Your task to perform on an android device: open app "Speedtest by Ookla" (install if not already installed) and go to login screen Image 0: 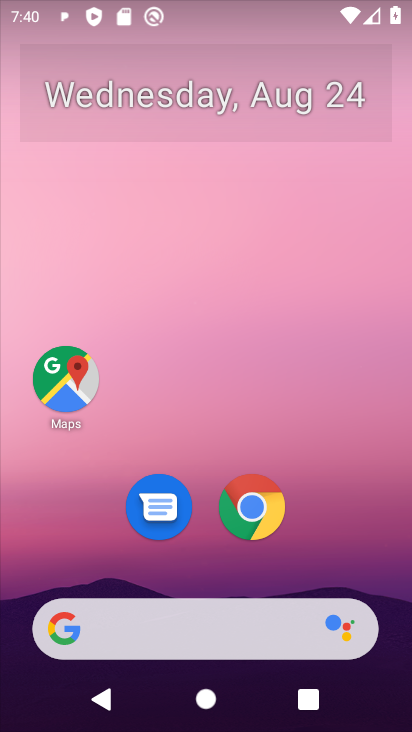
Step 0: press home button
Your task to perform on an android device: open app "Speedtest by Ookla" (install if not already installed) and go to login screen Image 1: 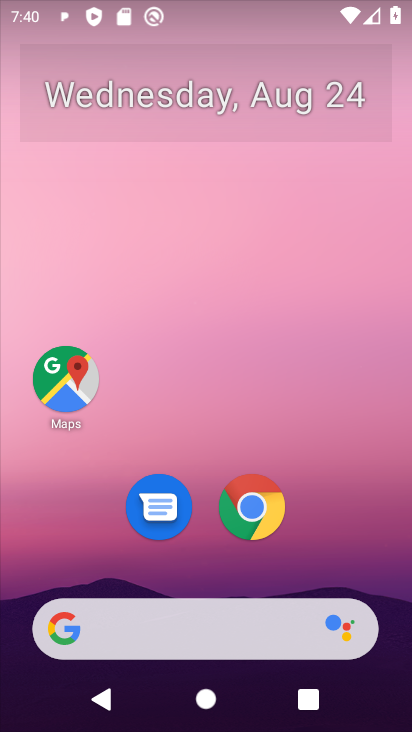
Step 1: drag from (352, 552) to (366, 110)
Your task to perform on an android device: open app "Speedtest by Ookla" (install if not already installed) and go to login screen Image 2: 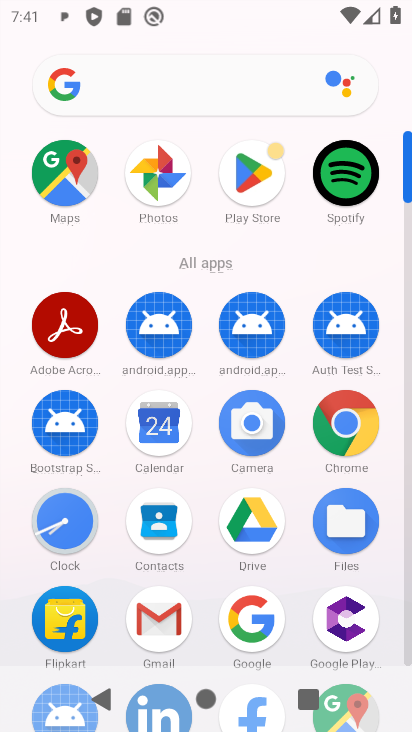
Step 2: click (257, 173)
Your task to perform on an android device: open app "Speedtest by Ookla" (install if not already installed) and go to login screen Image 3: 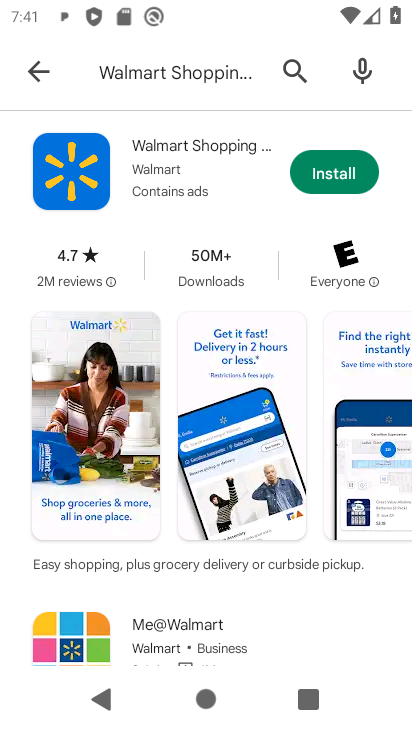
Step 3: press back button
Your task to perform on an android device: open app "Speedtest by Ookla" (install if not already installed) and go to login screen Image 4: 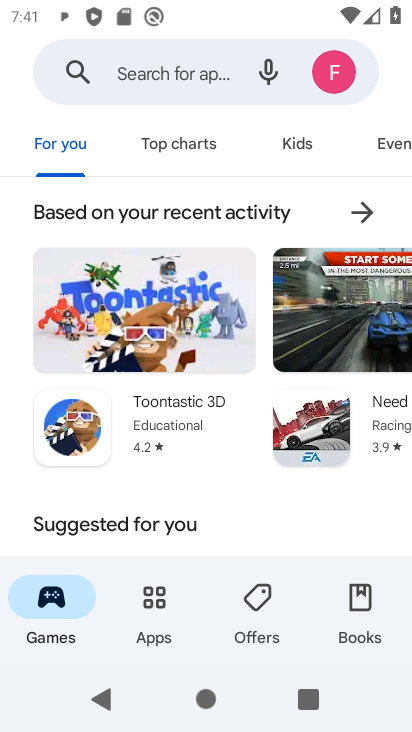
Step 4: click (174, 70)
Your task to perform on an android device: open app "Speedtest by Ookla" (install if not already installed) and go to login screen Image 5: 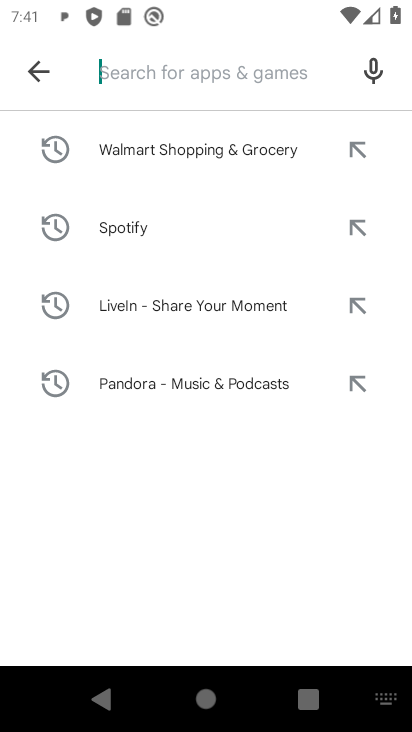
Step 5: type "Speedtest by Ookla"
Your task to perform on an android device: open app "Speedtest by Ookla" (install if not already installed) and go to login screen Image 6: 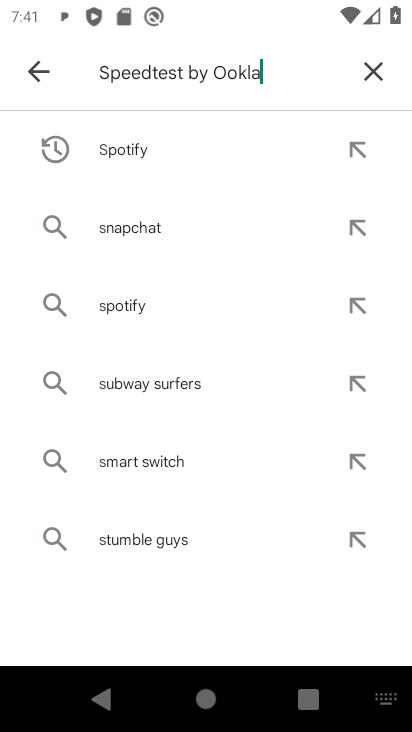
Step 6: press enter
Your task to perform on an android device: open app "Speedtest by Ookla" (install if not already installed) and go to login screen Image 7: 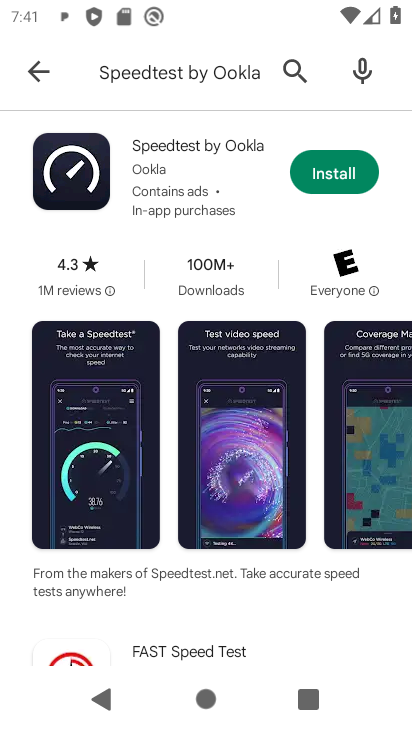
Step 7: click (338, 171)
Your task to perform on an android device: open app "Speedtest by Ookla" (install if not already installed) and go to login screen Image 8: 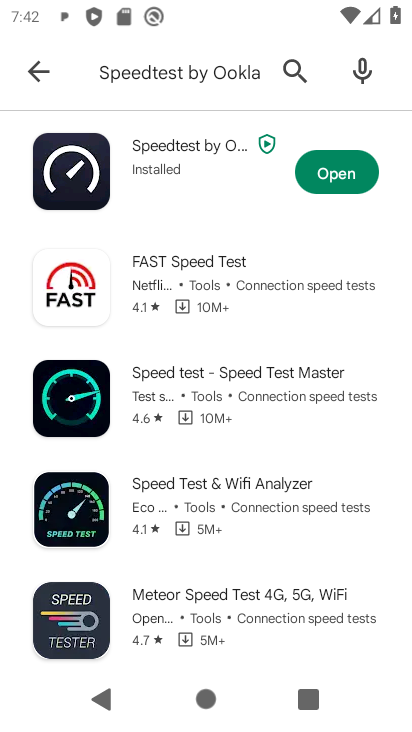
Step 8: click (345, 165)
Your task to perform on an android device: open app "Speedtest by Ookla" (install if not already installed) and go to login screen Image 9: 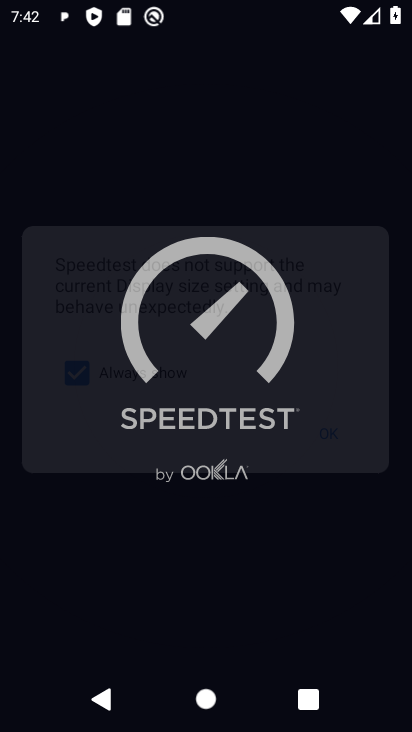
Step 9: click (330, 428)
Your task to perform on an android device: open app "Speedtest by Ookla" (install if not already installed) and go to login screen Image 10: 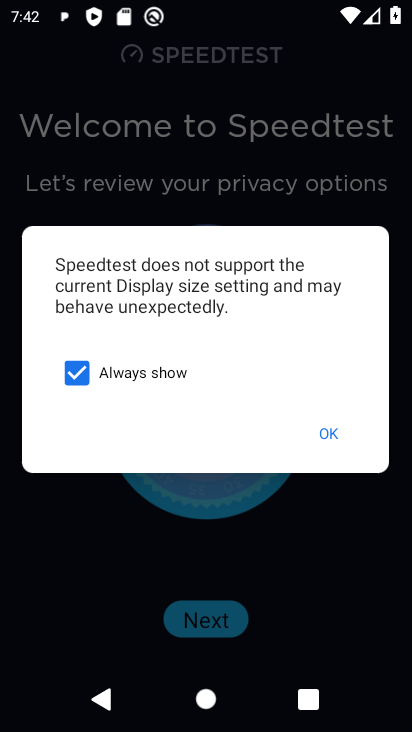
Step 10: click (324, 437)
Your task to perform on an android device: open app "Speedtest by Ookla" (install if not already installed) and go to login screen Image 11: 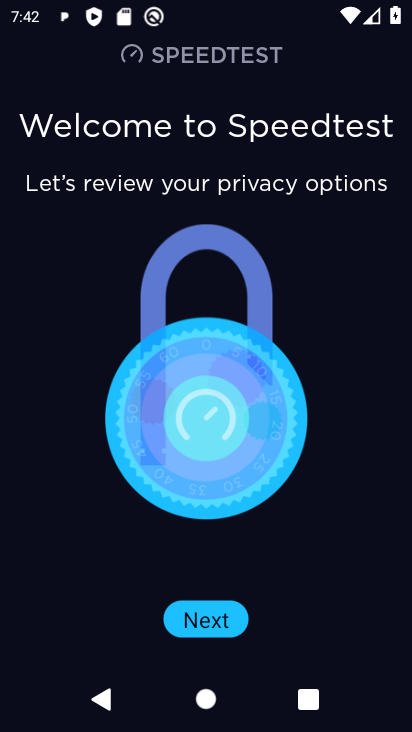
Step 11: click (211, 628)
Your task to perform on an android device: open app "Speedtest by Ookla" (install if not already installed) and go to login screen Image 12: 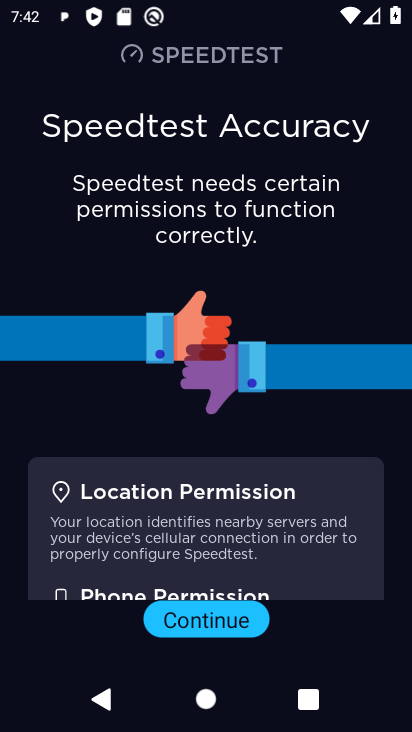
Step 12: click (217, 632)
Your task to perform on an android device: open app "Speedtest by Ookla" (install if not already installed) and go to login screen Image 13: 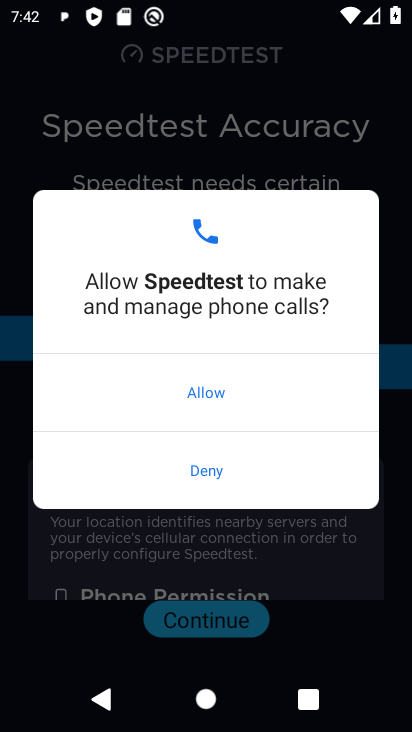
Step 13: click (201, 391)
Your task to perform on an android device: open app "Speedtest by Ookla" (install if not already installed) and go to login screen Image 14: 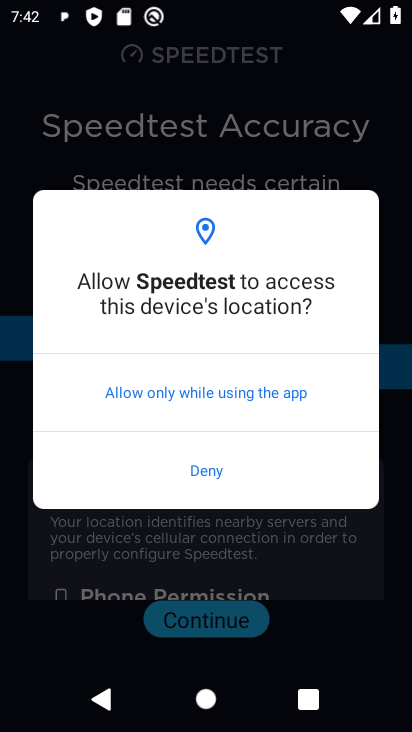
Step 14: click (233, 393)
Your task to perform on an android device: open app "Speedtest by Ookla" (install if not already installed) and go to login screen Image 15: 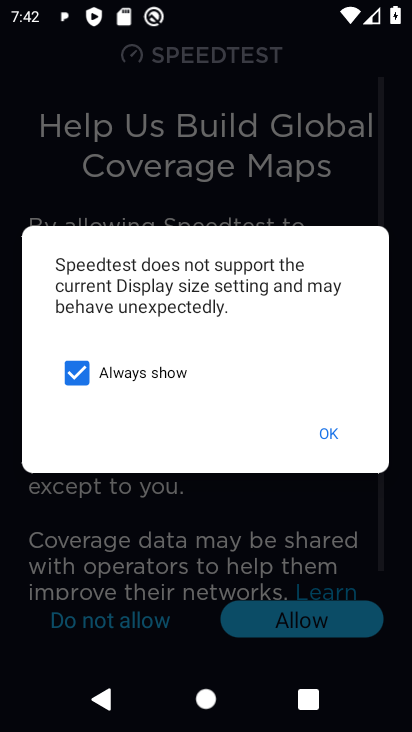
Step 15: click (330, 432)
Your task to perform on an android device: open app "Speedtest by Ookla" (install if not already installed) and go to login screen Image 16: 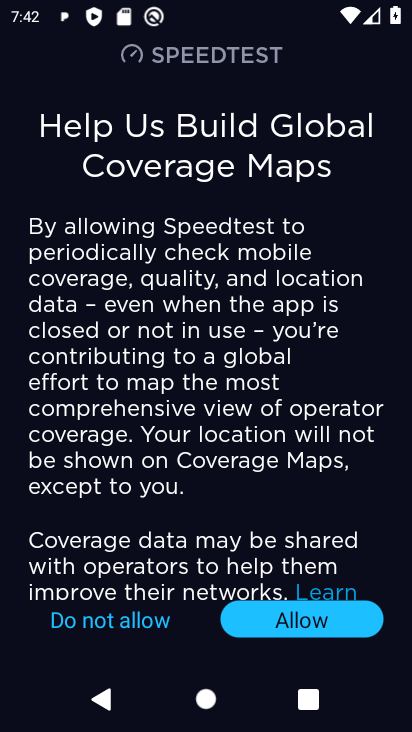
Step 16: click (314, 613)
Your task to perform on an android device: open app "Speedtest by Ookla" (install if not already installed) and go to login screen Image 17: 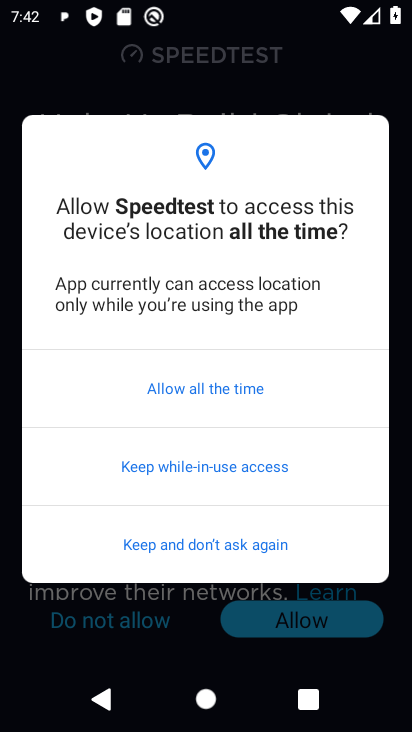
Step 17: click (257, 394)
Your task to perform on an android device: open app "Speedtest by Ookla" (install if not already installed) and go to login screen Image 18: 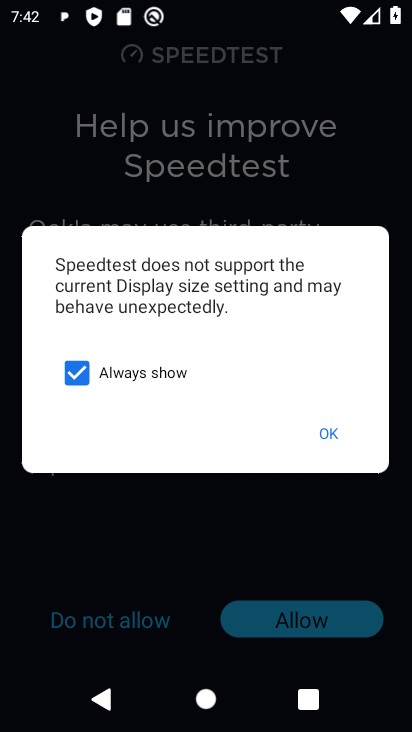
Step 18: click (340, 438)
Your task to perform on an android device: open app "Speedtest by Ookla" (install if not already installed) and go to login screen Image 19: 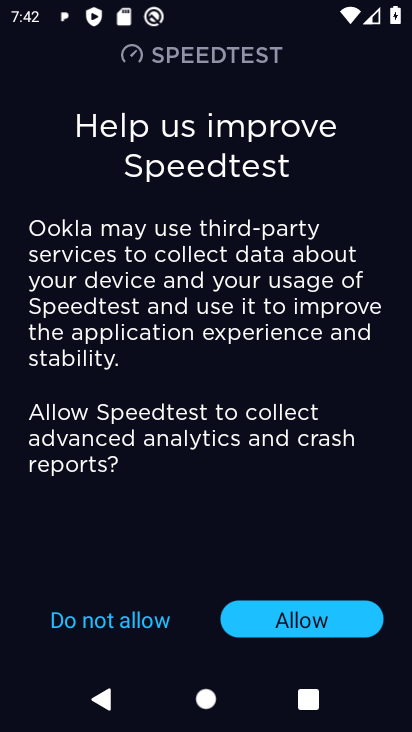
Step 19: click (324, 618)
Your task to perform on an android device: open app "Speedtest by Ookla" (install if not already installed) and go to login screen Image 20: 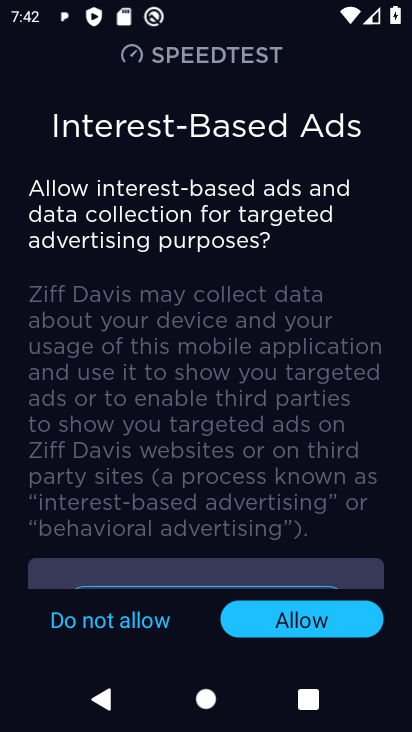
Step 20: click (311, 619)
Your task to perform on an android device: open app "Speedtest by Ookla" (install if not already installed) and go to login screen Image 21: 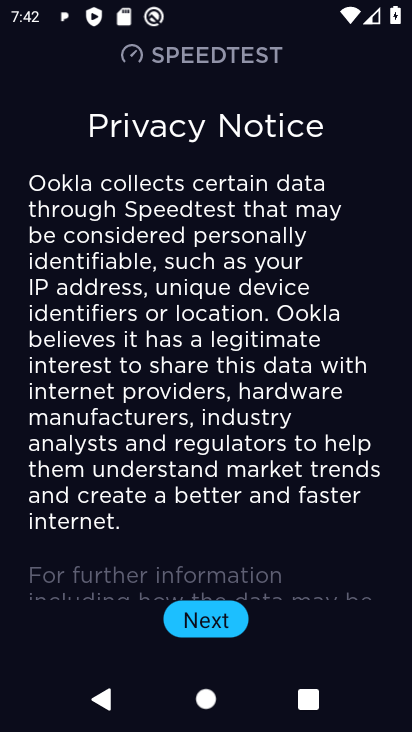
Step 21: click (204, 619)
Your task to perform on an android device: open app "Speedtest by Ookla" (install if not already installed) and go to login screen Image 22: 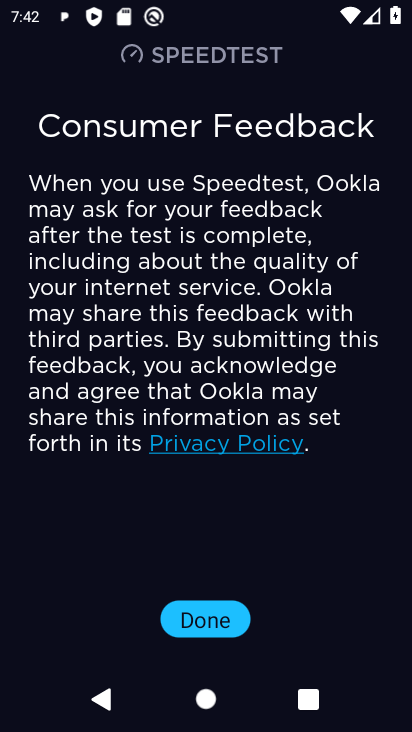
Step 22: click (217, 626)
Your task to perform on an android device: open app "Speedtest by Ookla" (install if not already installed) and go to login screen Image 23: 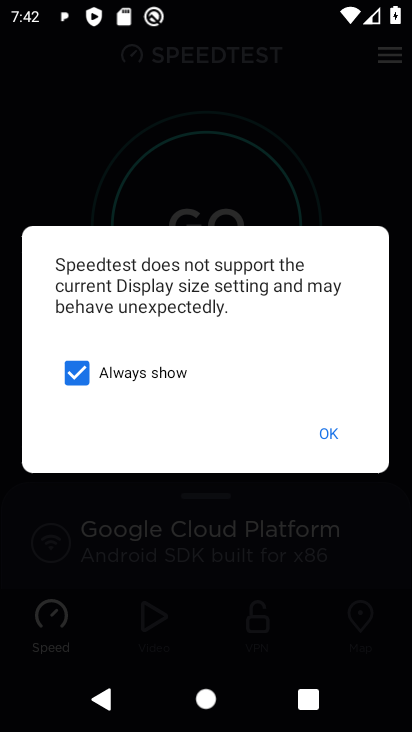
Step 23: click (327, 428)
Your task to perform on an android device: open app "Speedtest by Ookla" (install if not already installed) and go to login screen Image 24: 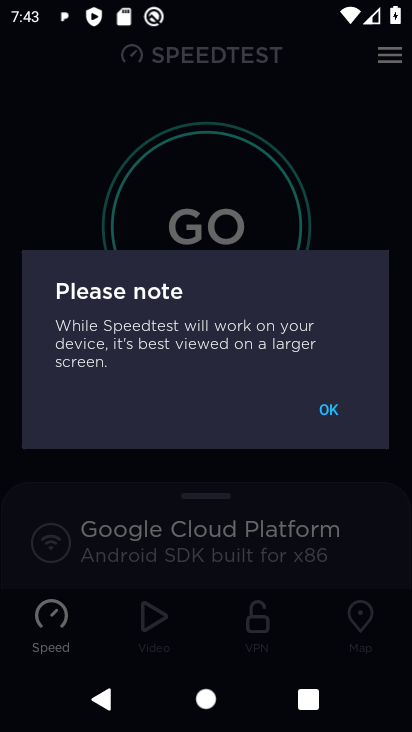
Step 24: click (323, 405)
Your task to perform on an android device: open app "Speedtest by Ookla" (install if not already installed) and go to login screen Image 25: 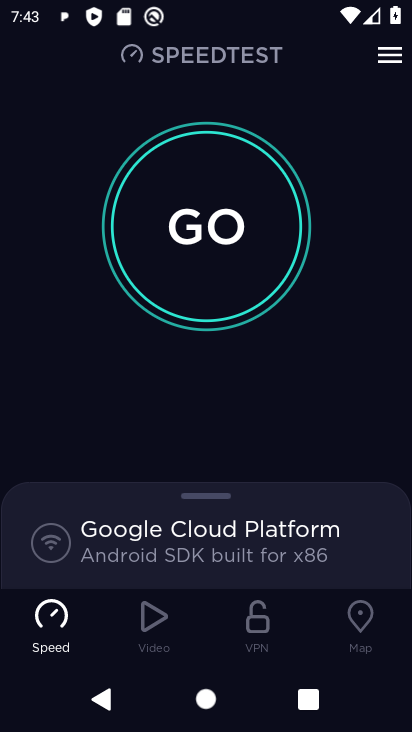
Step 25: click (392, 58)
Your task to perform on an android device: open app "Speedtest by Ookla" (install if not already installed) and go to login screen Image 26: 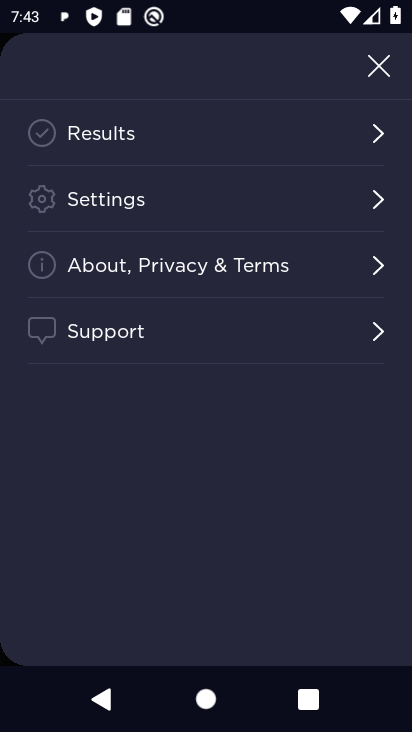
Step 26: click (382, 70)
Your task to perform on an android device: open app "Speedtest by Ookla" (install if not already installed) and go to login screen Image 27: 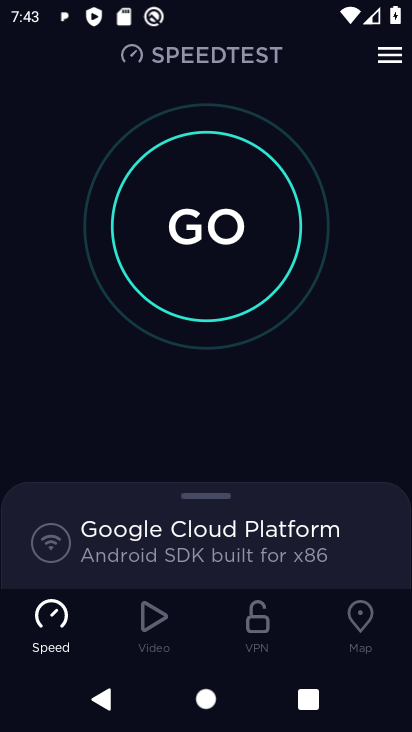
Step 27: task complete